Your task to perform on an android device: Open the Play Movies app and select the watchlist tab. Image 0: 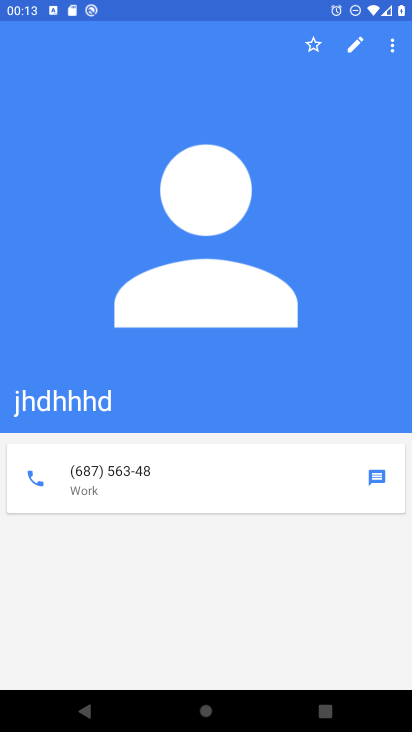
Step 0: press home button
Your task to perform on an android device: Open the Play Movies app and select the watchlist tab. Image 1: 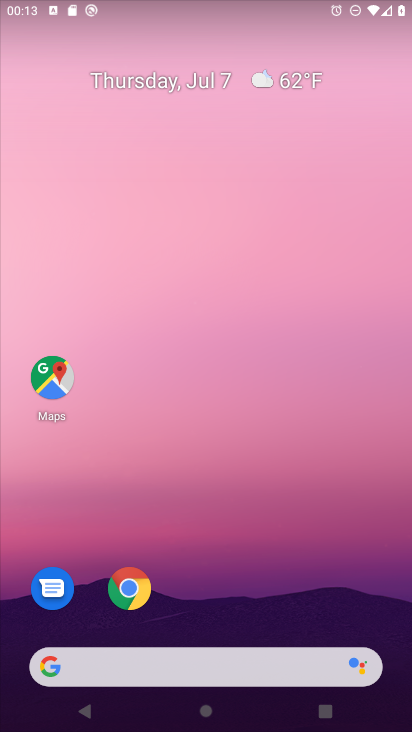
Step 1: drag from (375, 620) to (318, 11)
Your task to perform on an android device: Open the Play Movies app and select the watchlist tab. Image 2: 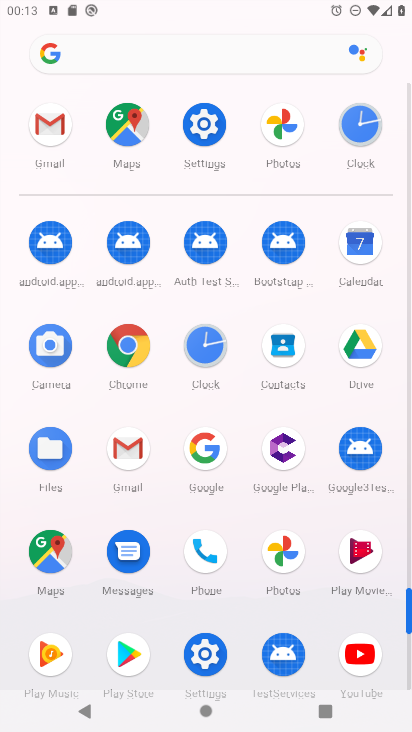
Step 2: click (364, 552)
Your task to perform on an android device: Open the Play Movies app and select the watchlist tab. Image 3: 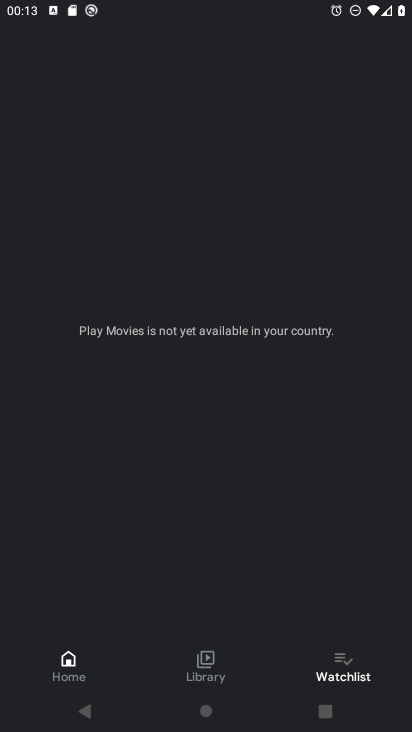
Step 3: click (337, 671)
Your task to perform on an android device: Open the Play Movies app and select the watchlist tab. Image 4: 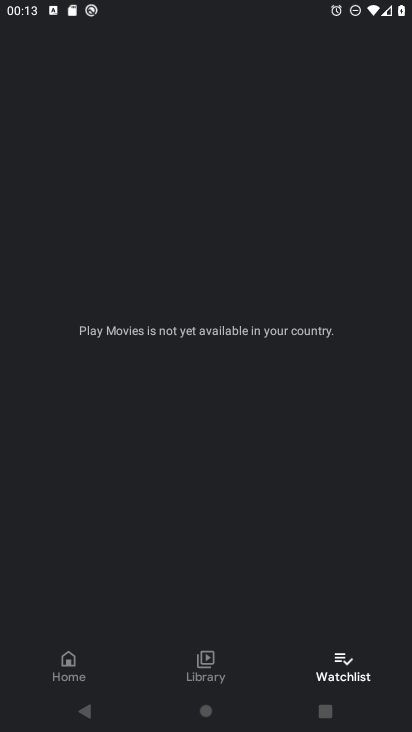
Step 4: task complete